Your task to perform on an android device: Go to Amazon Image 0: 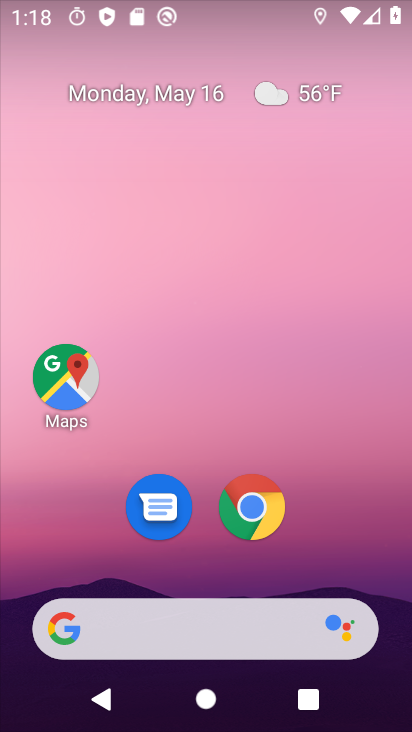
Step 0: click (248, 512)
Your task to perform on an android device: Go to Amazon Image 1: 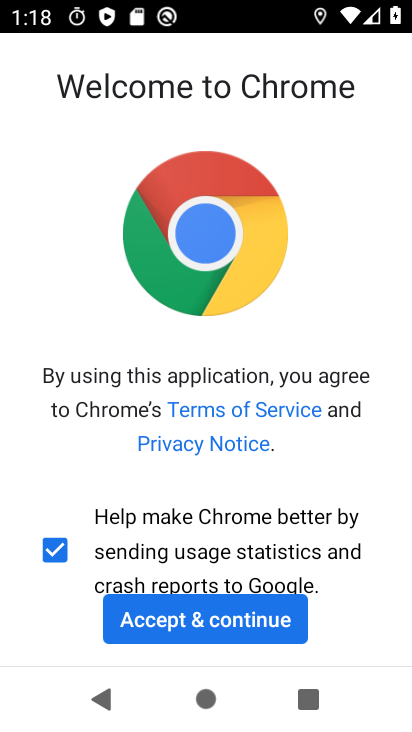
Step 1: click (201, 605)
Your task to perform on an android device: Go to Amazon Image 2: 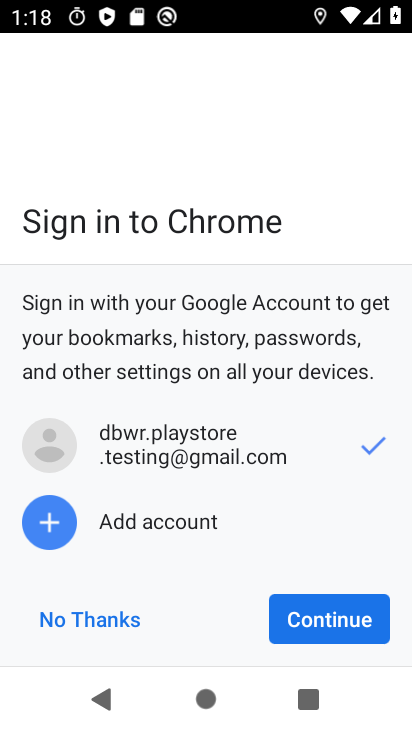
Step 2: click (335, 617)
Your task to perform on an android device: Go to Amazon Image 3: 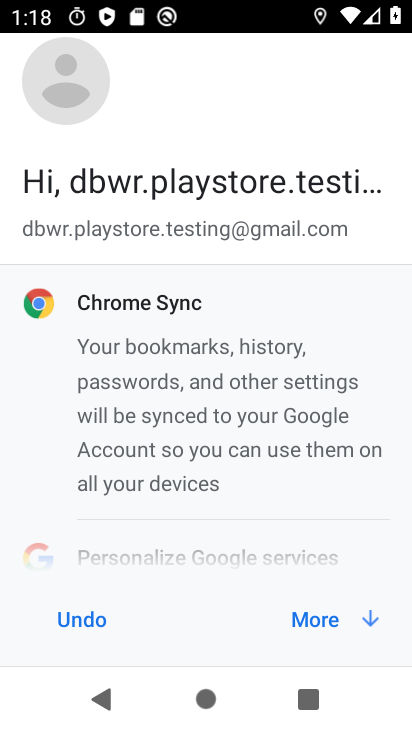
Step 3: click (315, 620)
Your task to perform on an android device: Go to Amazon Image 4: 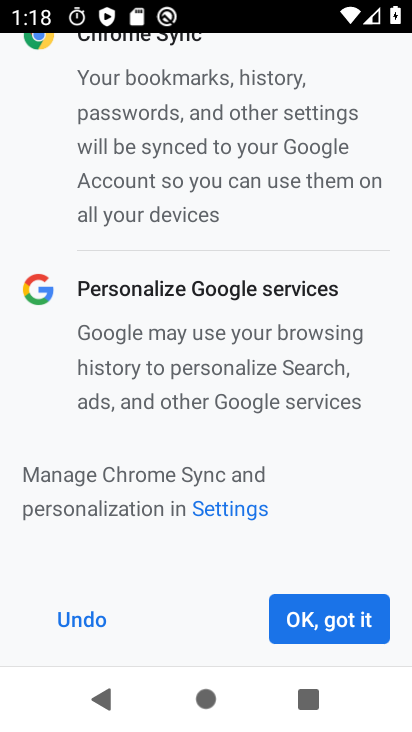
Step 4: click (315, 621)
Your task to perform on an android device: Go to Amazon Image 5: 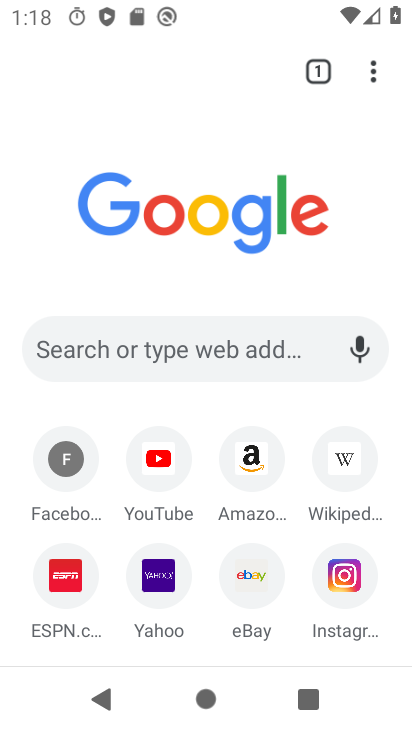
Step 5: click (250, 456)
Your task to perform on an android device: Go to Amazon Image 6: 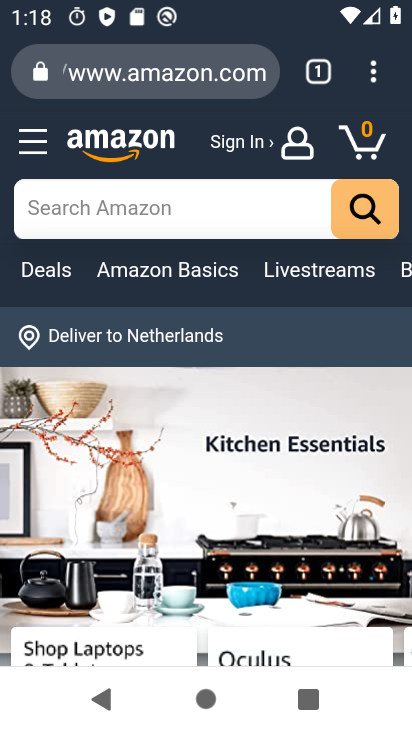
Step 6: task complete